Your task to perform on an android device: What's a good restaurant in New York? Image 0: 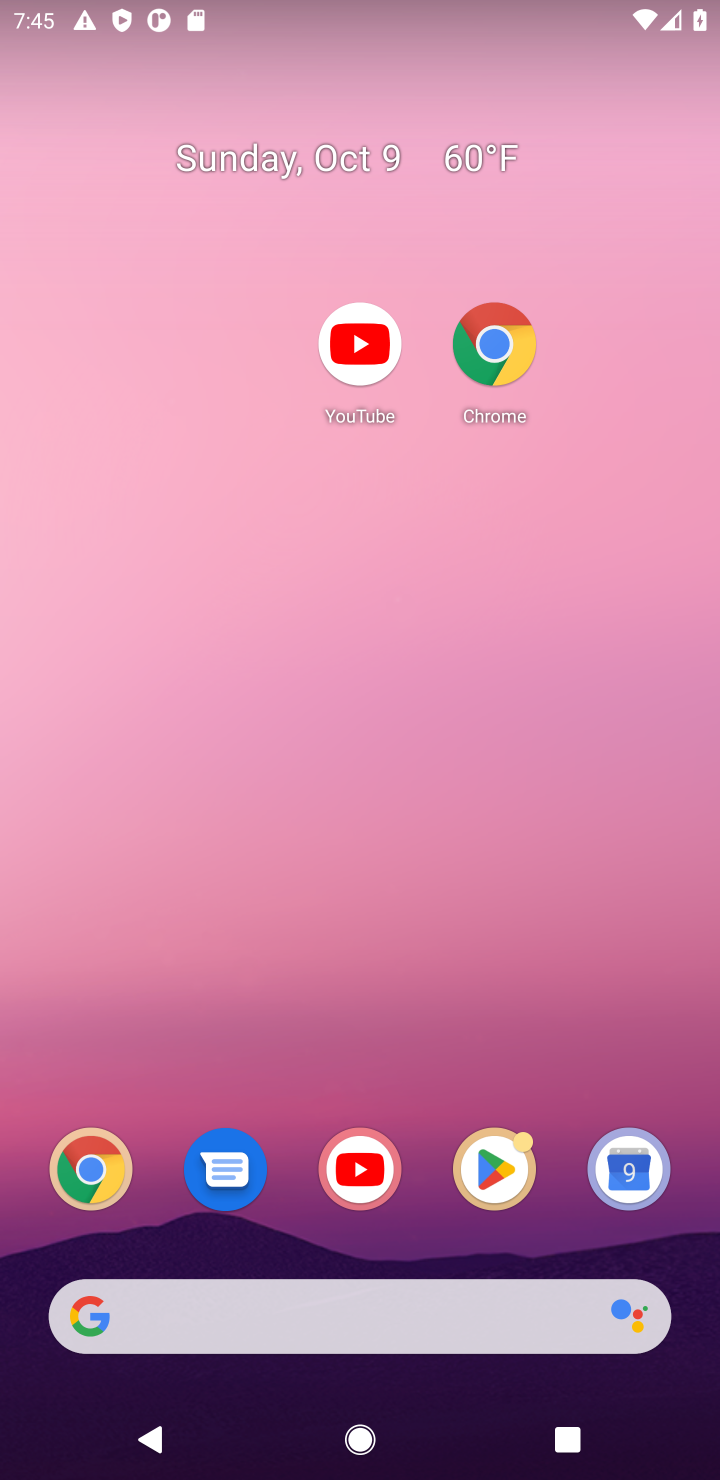
Step 0: drag from (341, 1259) to (386, 285)
Your task to perform on an android device: What's a good restaurant in New York? Image 1: 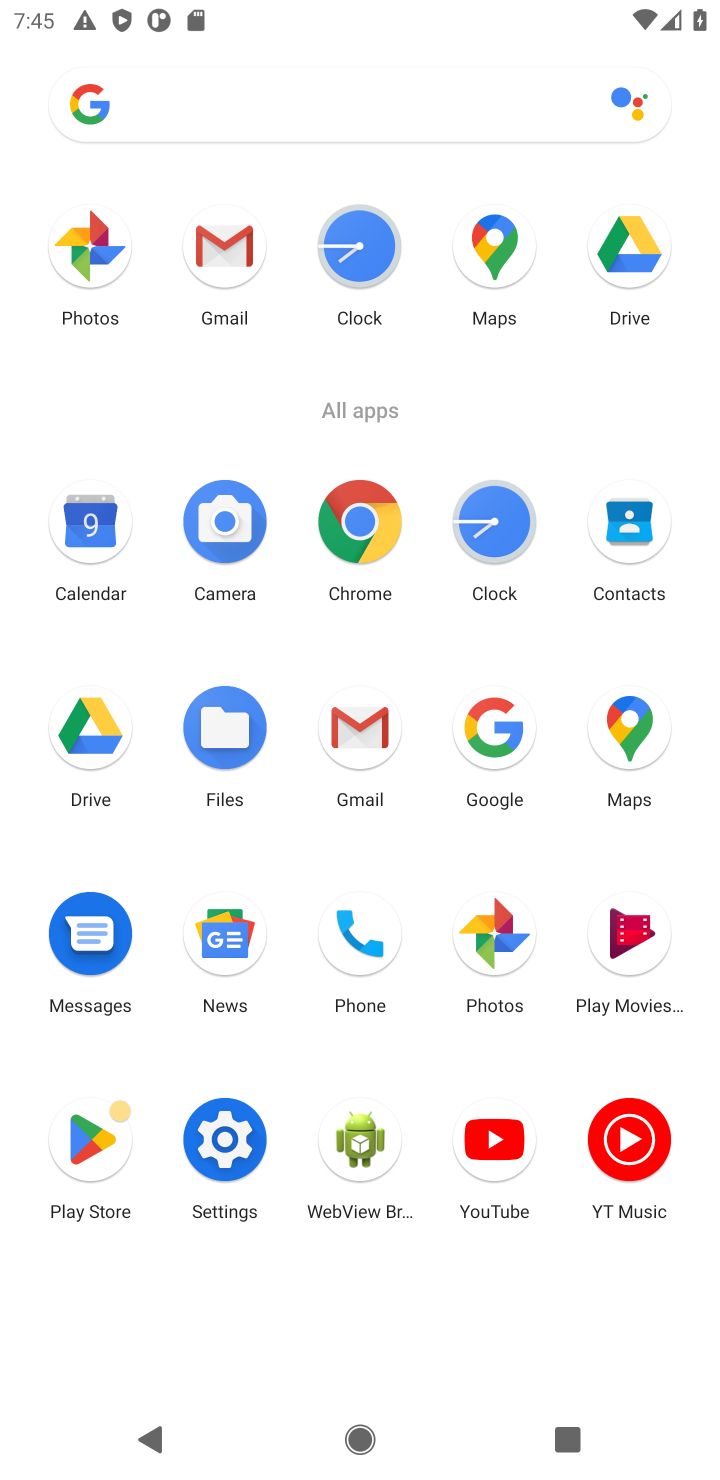
Step 1: click (360, 519)
Your task to perform on an android device: What's a good restaurant in New York? Image 2: 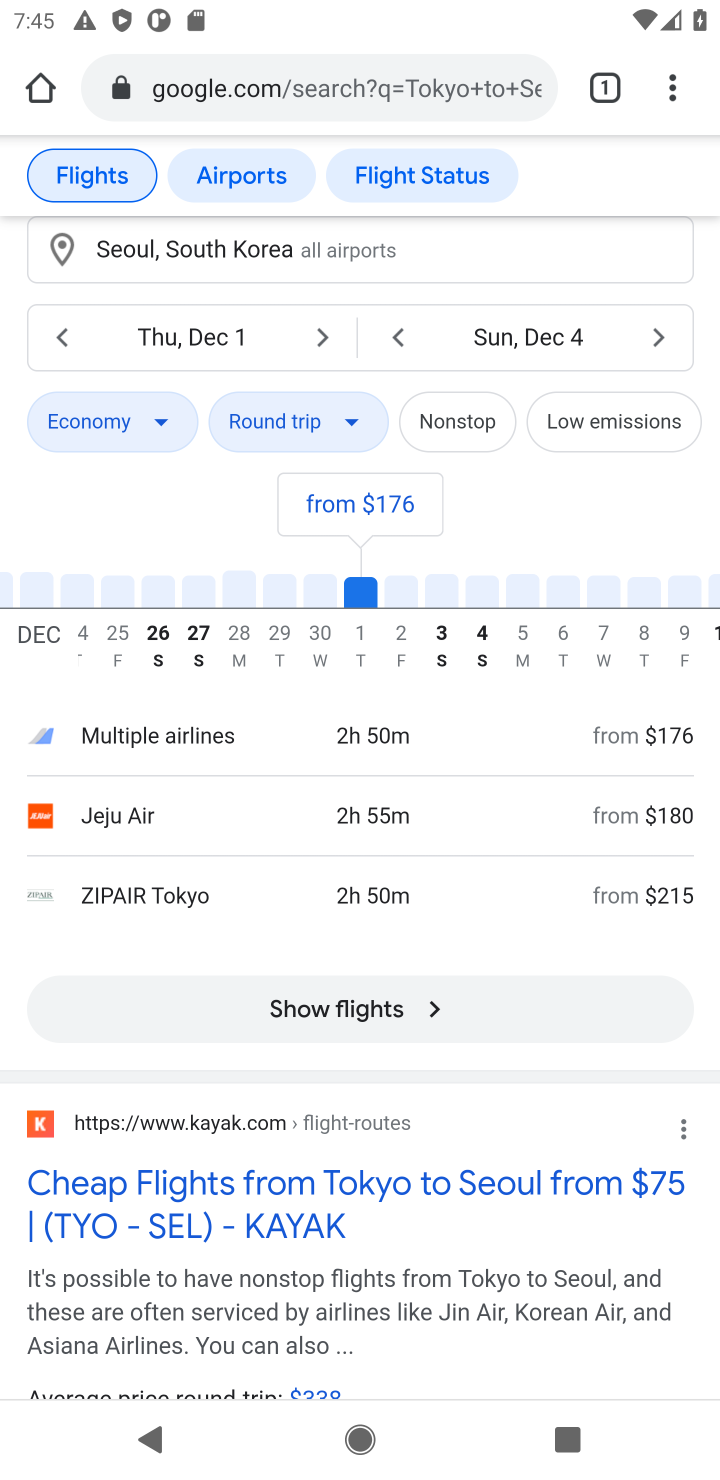
Step 2: click (338, 79)
Your task to perform on an android device: What's a good restaurant in New York? Image 3: 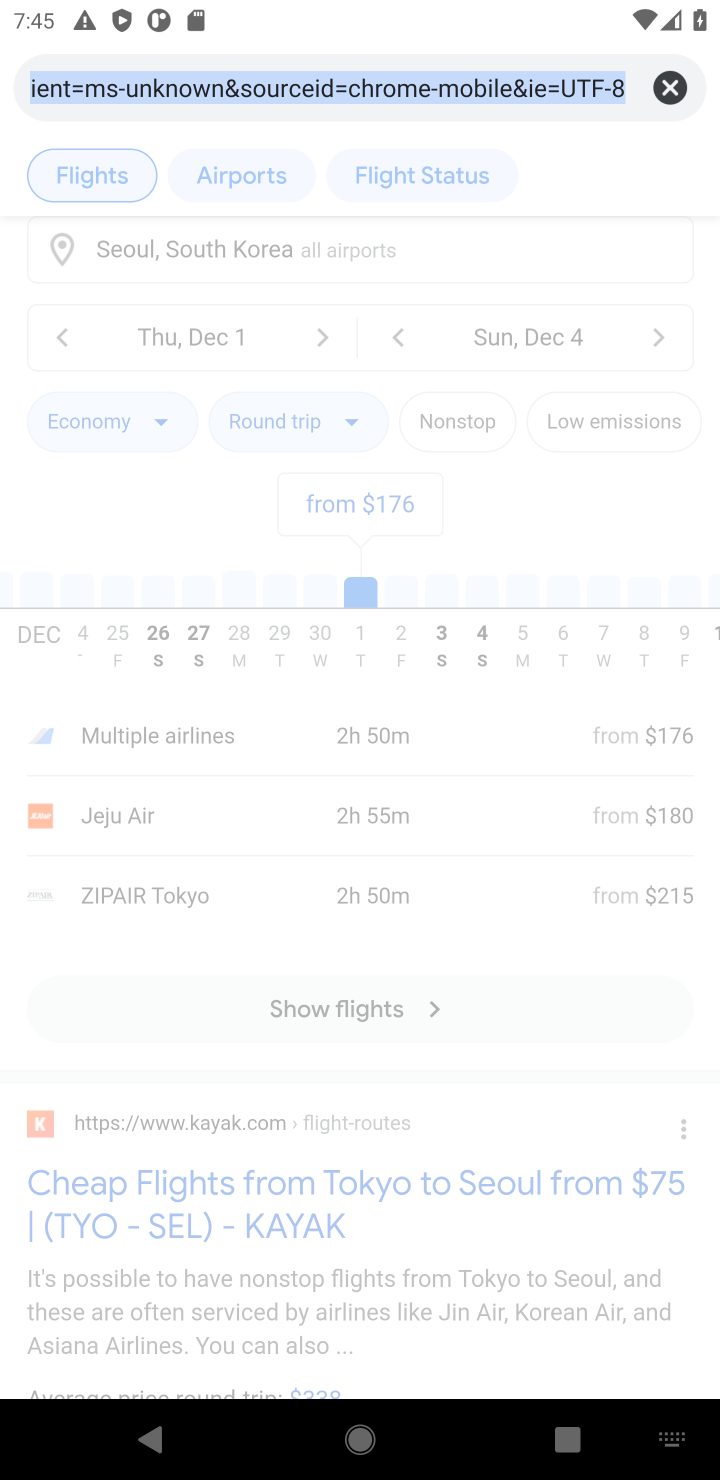
Step 3: type "good restaurant in New York"
Your task to perform on an android device: What's a good restaurant in New York? Image 4: 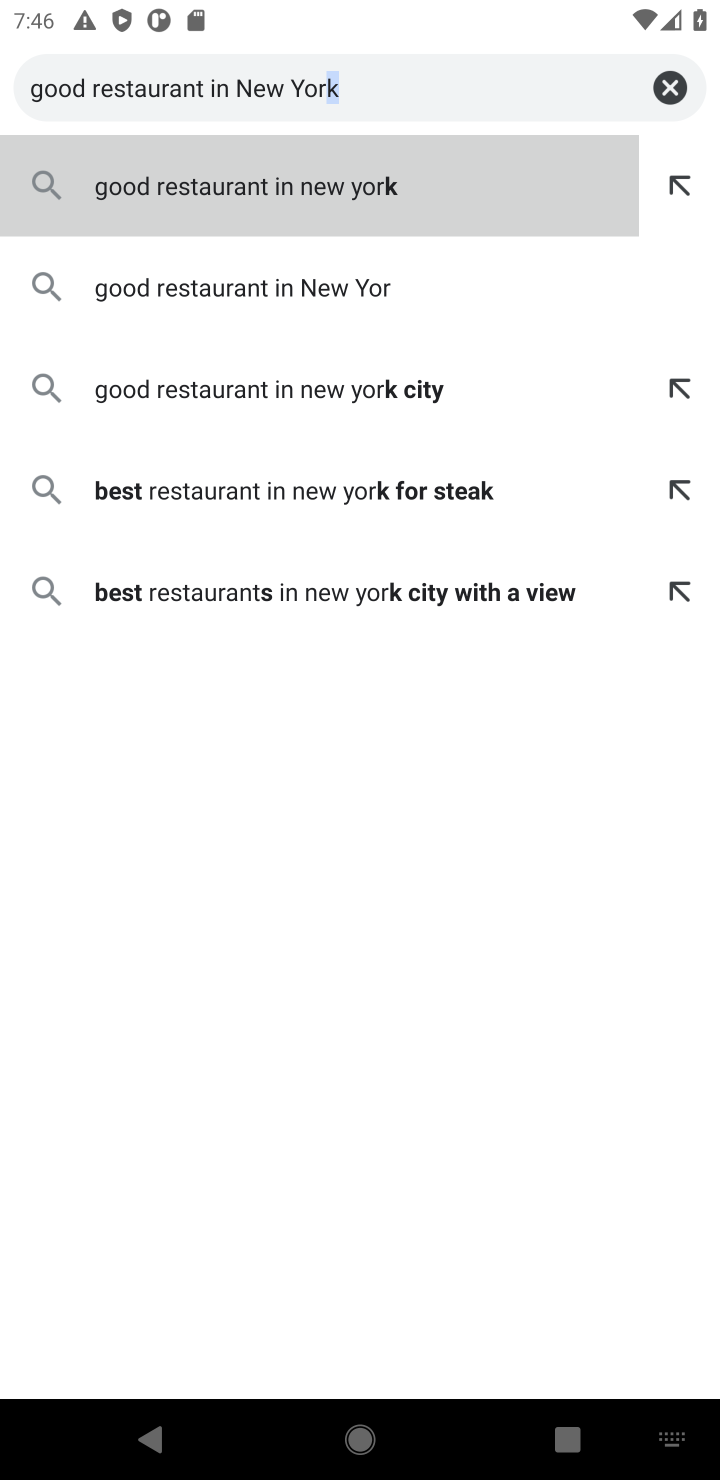
Step 4: press enter
Your task to perform on an android device: What's a good restaurant in New York? Image 5: 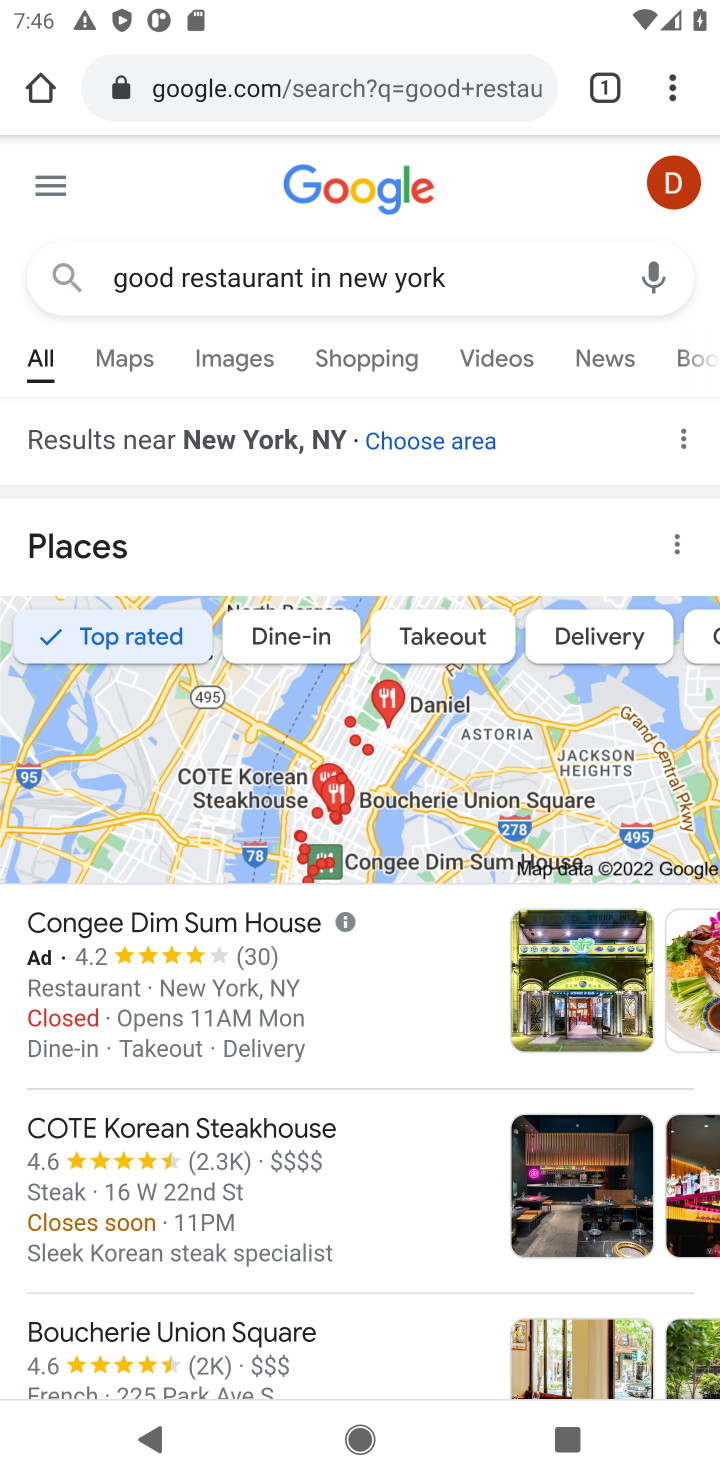
Step 5: task complete